Your task to perform on an android device: Open Maps and search for coffee Image 0: 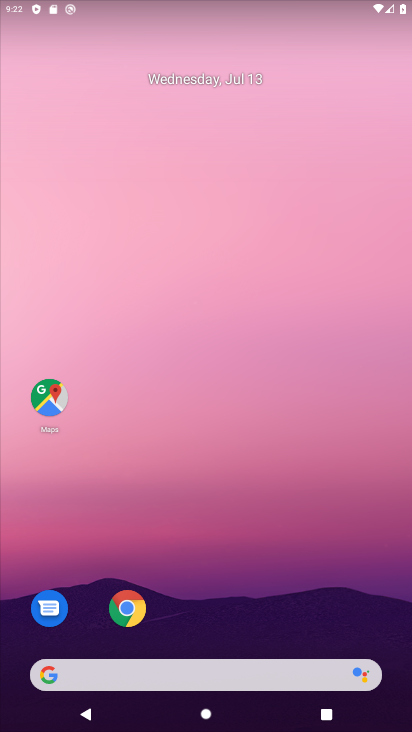
Step 0: click (47, 398)
Your task to perform on an android device: Open Maps and search for coffee Image 1: 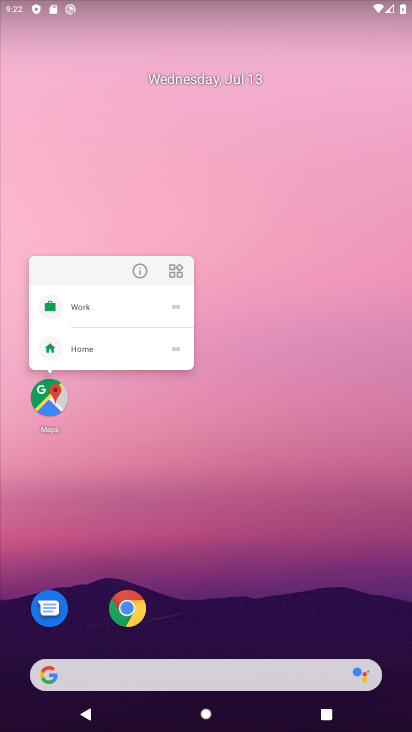
Step 1: click (45, 410)
Your task to perform on an android device: Open Maps and search for coffee Image 2: 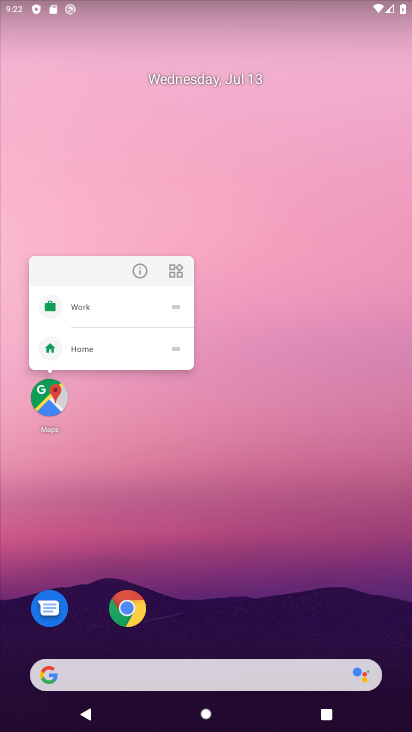
Step 2: click (47, 405)
Your task to perform on an android device: Open Maps and search for coffee Image 3: 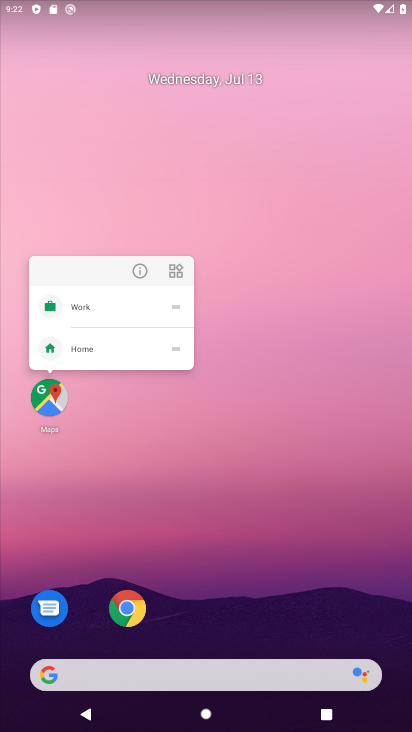
Step 3: click (46, 405)
Your task to perform on an android device: Open Maps and search for coffee Image 4: 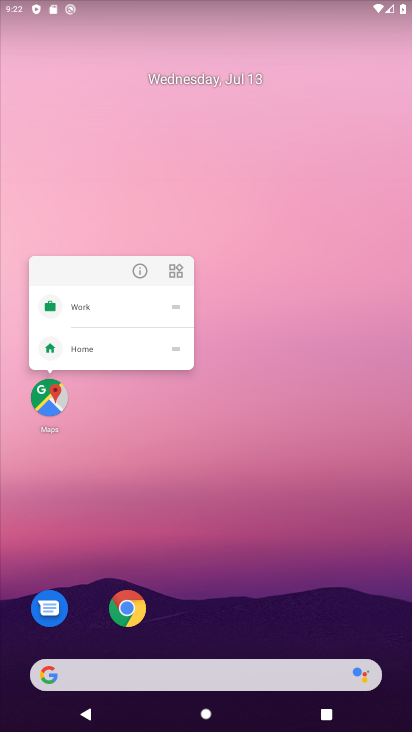
Step 4: click (46, 414)
Your task to perform on an android device: Open Maps and search for coffee Image 5: 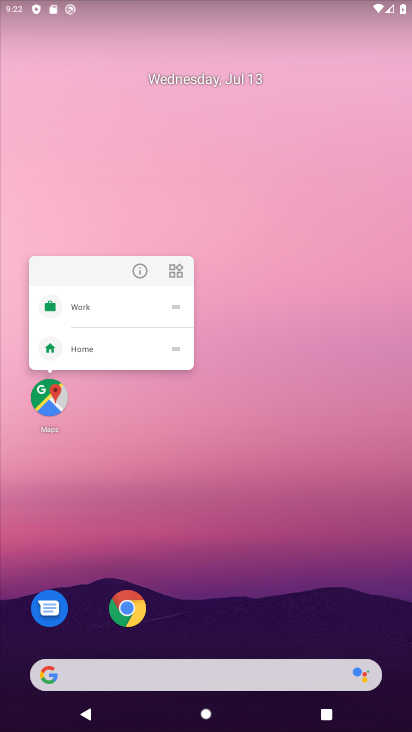
Step 5: task complete